Your task to perform on an android device: turn smart compose on in the gmail app Image 0: 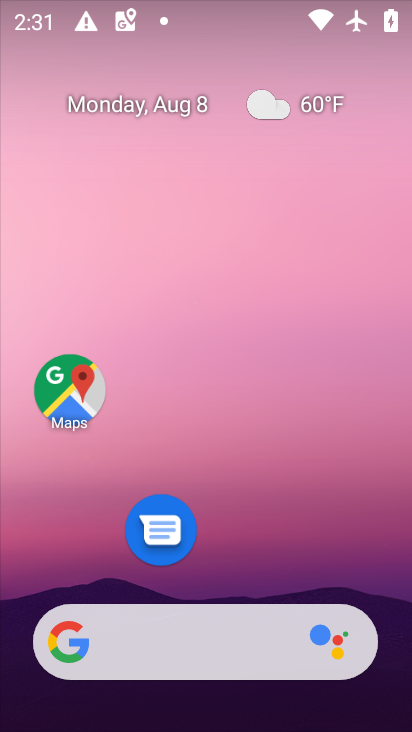
Step 0: drag from (226, 388) to (226, 117)
Your task to perform on an android device: turn smart compose on in the gmail app Image 1: 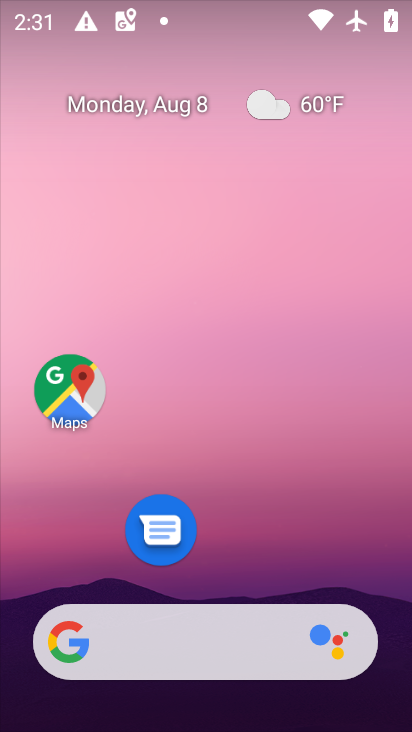
Step 1: drag from (232, 282) to (232, 77)
Your task to perform on an android device: turn smart compose on in the gmail app Image 2: 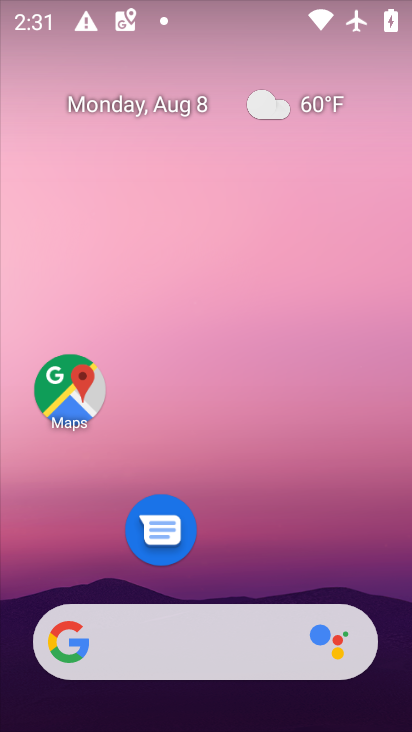
Step 2: drag from (224, 555) to (349, 11)
Your task to perform on an android device: turn smart compose on in the gmail app Image 3: 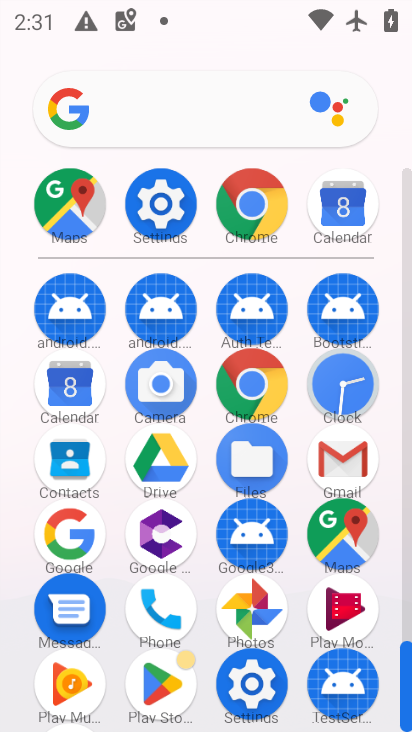
Step 3: click (356, 446)
Your task to perform on an android device: turn smart compose on in the gmail app Image 4: 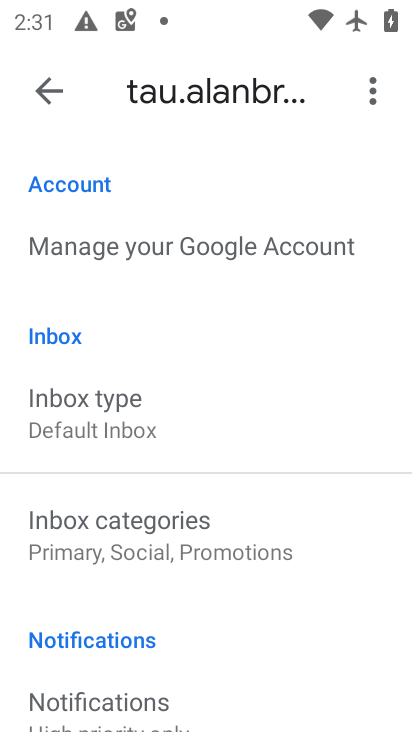
Step 4: task complete